Your task to perform on an android device: delete location history Image 0: 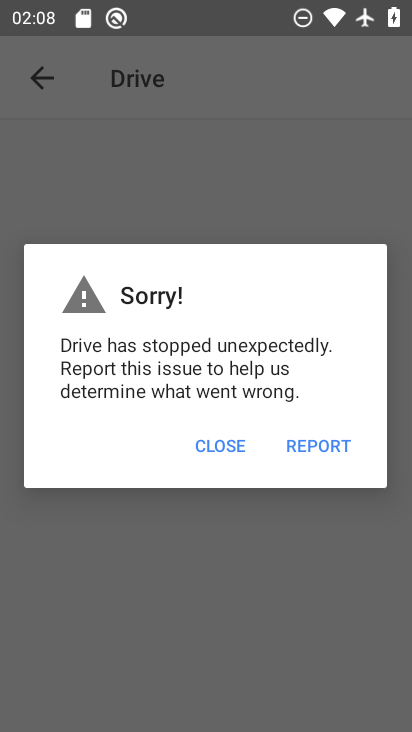
Step 0: press home button
Your task to perform on an android device: delete location history Image 1: 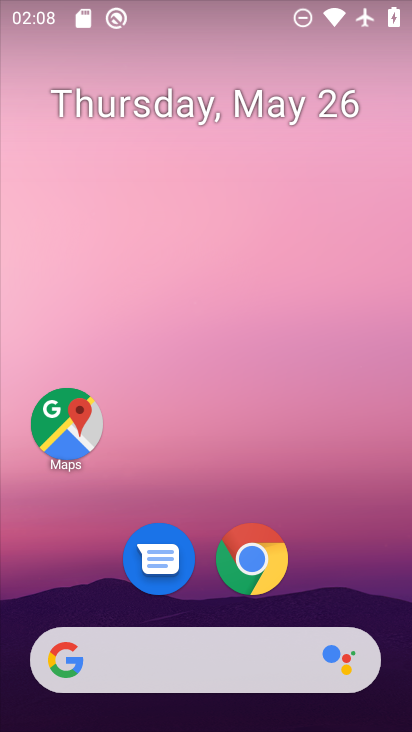
Step 1: click (68, 444)
Your task to perform on an android device: delete location history Image 2: 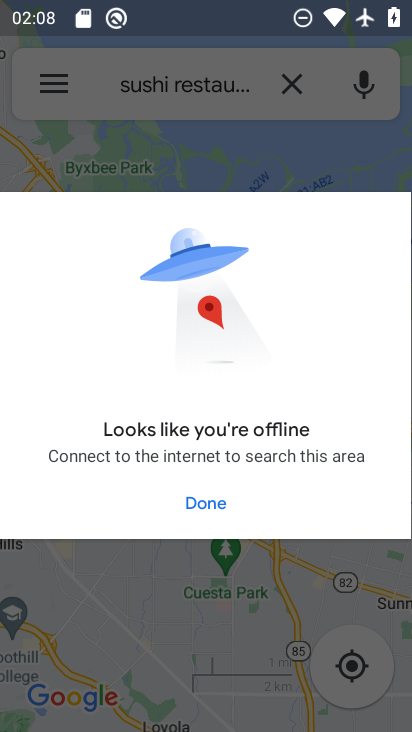
Step 2: click (210, 510)
Your task to perform on an android device: delete location history Image 3: 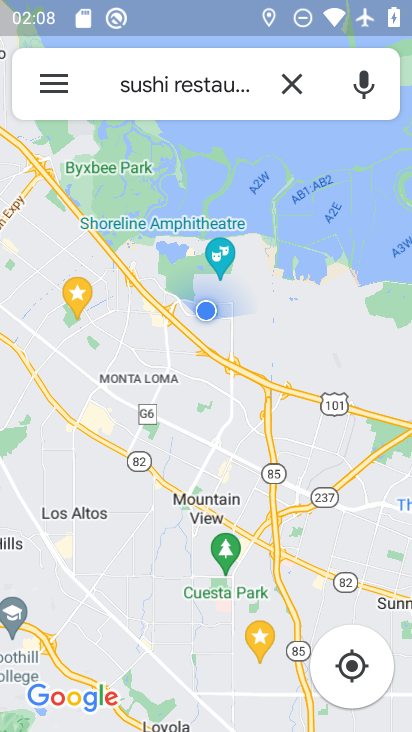
Step 3: click (60, 73)
Your task to perform on an android device: delete location history Image 4: 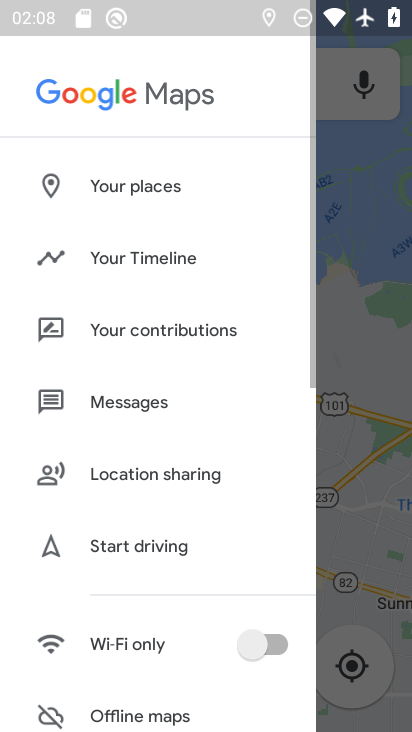
Step 4: click (146, 256)
Your task to perform on an android device: delete location history Image 5: 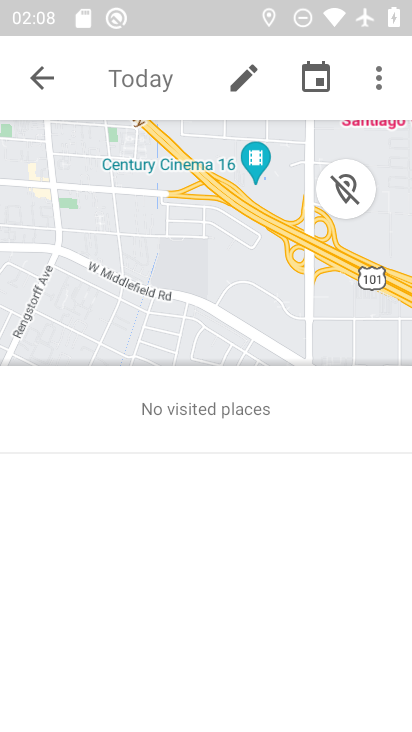
Step 5: click (375, 83)
Your task to perform on an android device: delete location history Image 6: 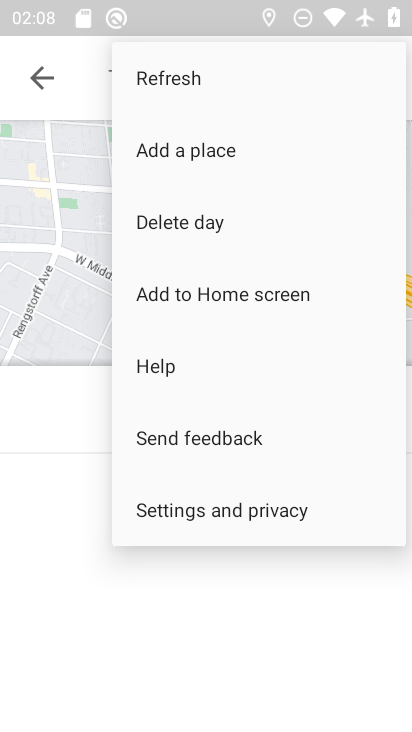
Step 6: click (223, 507)
Your task to perform on an android device: delete location history Image 7: 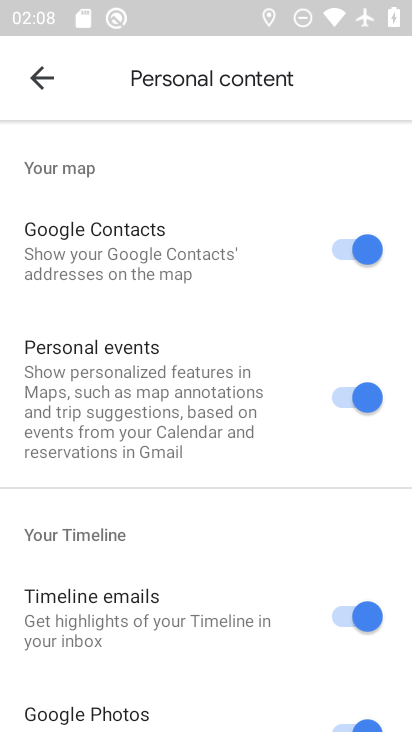
Step 7: drag from (122, 641) to (269, 185)
Your task to perform on an android device: delete location history Image 8: 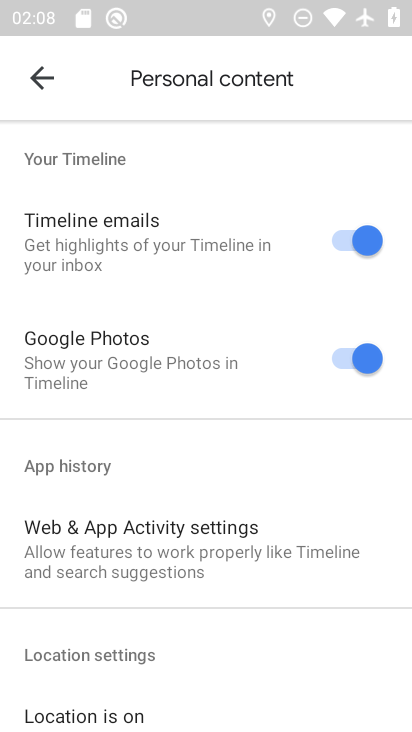
Step 8: drag from (153, 612) to (235, 118)
Your task to perform on an android device: delete location history Image 9: 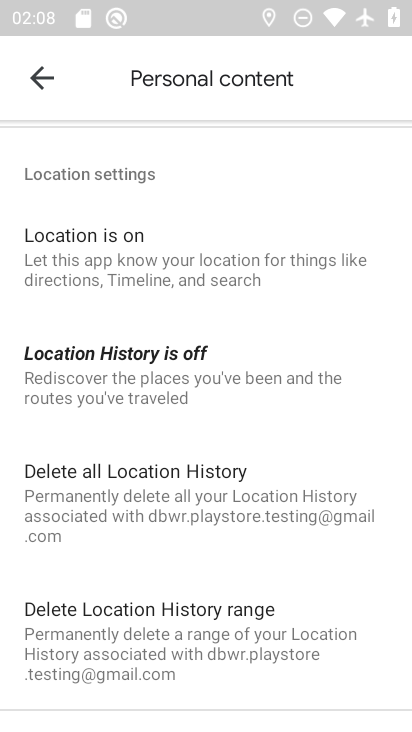
Step 9: click (181, 479)
Your task to perform on an android device: delete location history Image 10: 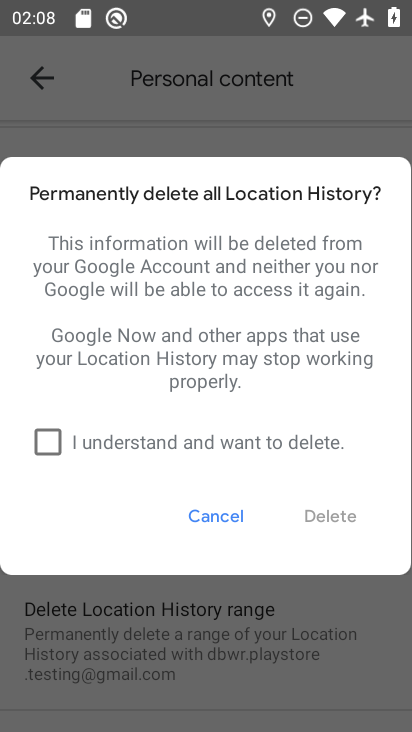
Step 10: click (54, 453)
Your task to perform on an android device: delete location history Image 11: 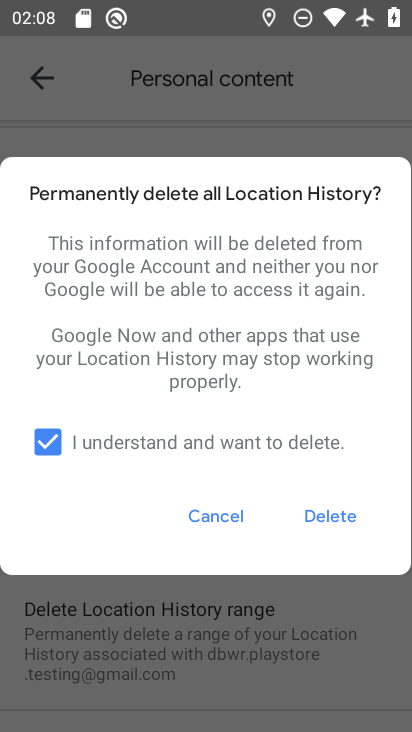
Step 11: click (337, 512)
Your task to perform on an android device: delete location history Image 12: 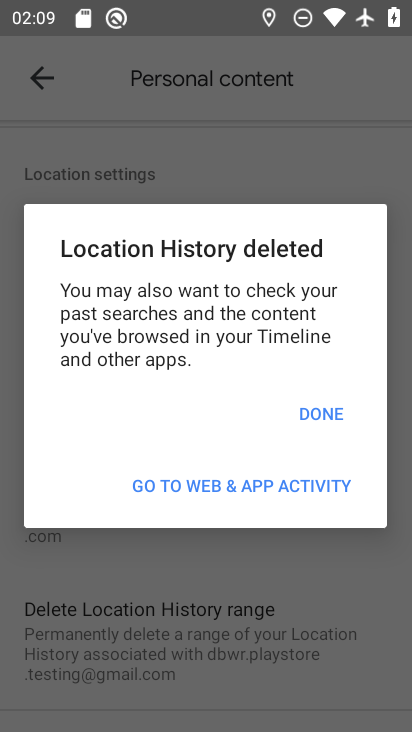
Step 12: click (312, 416)
Your task to perform on an android device: delete location history Image 13: 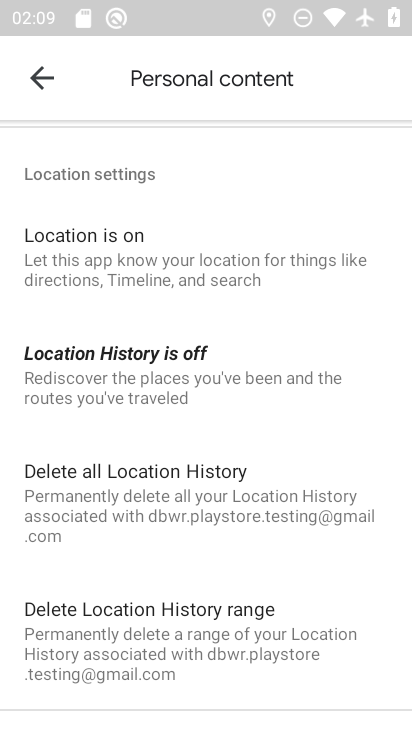
Step 13: task complete